Your task to perform on an android device: open app "Duolingo: language lessons" Image 0: 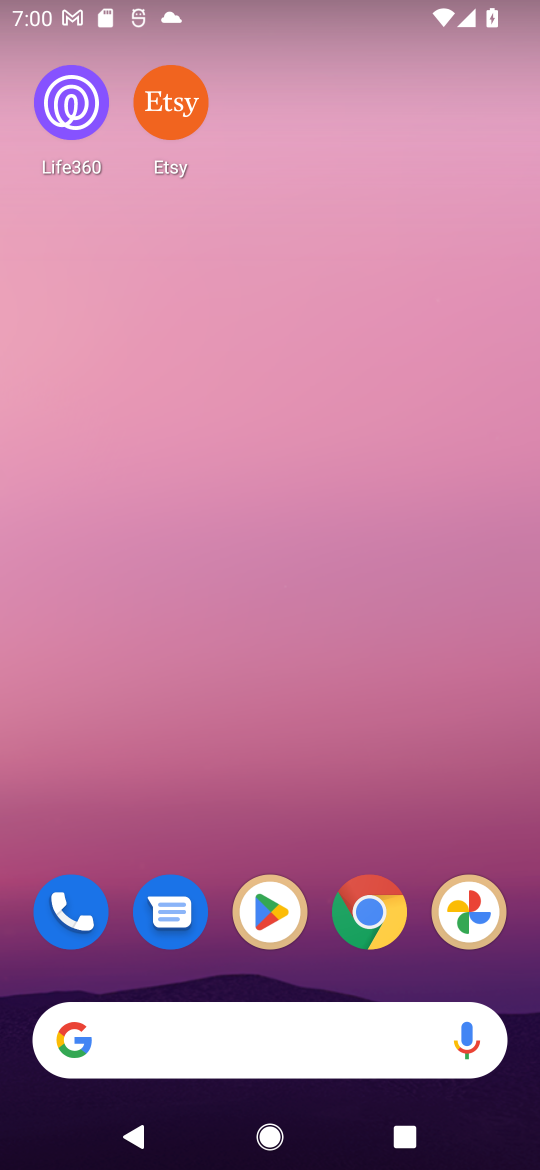
Step 0: drag from (490, 826) to (222, 28)
Your task to perform on an android device: open app "Duolingo: language lessons" Image 1: 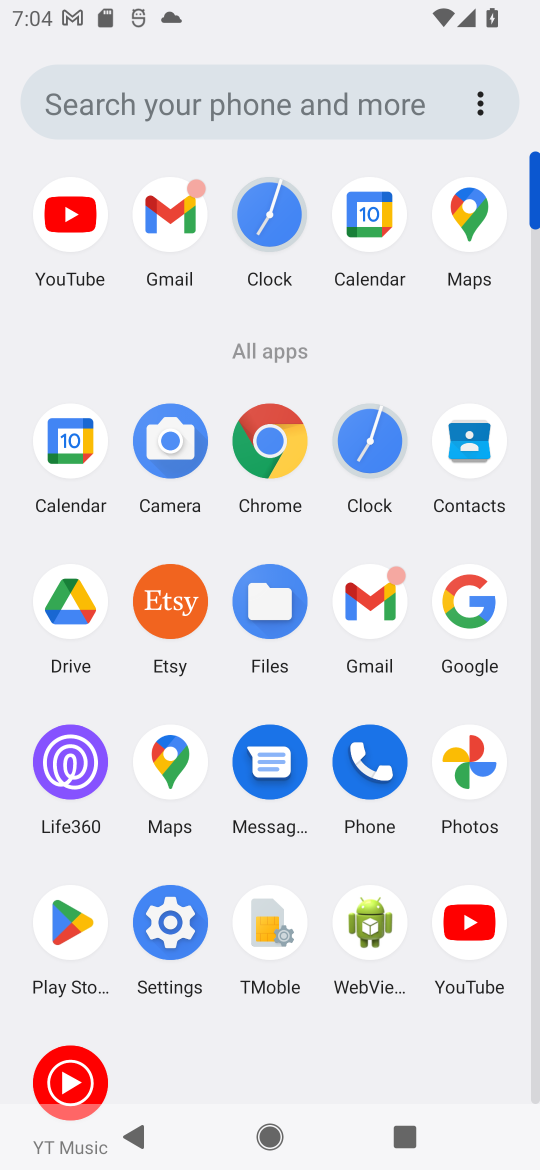
Step 1: click (60, 915)
Your task to perform on an android device: open app "Duolingo: language lessons" Image 2: 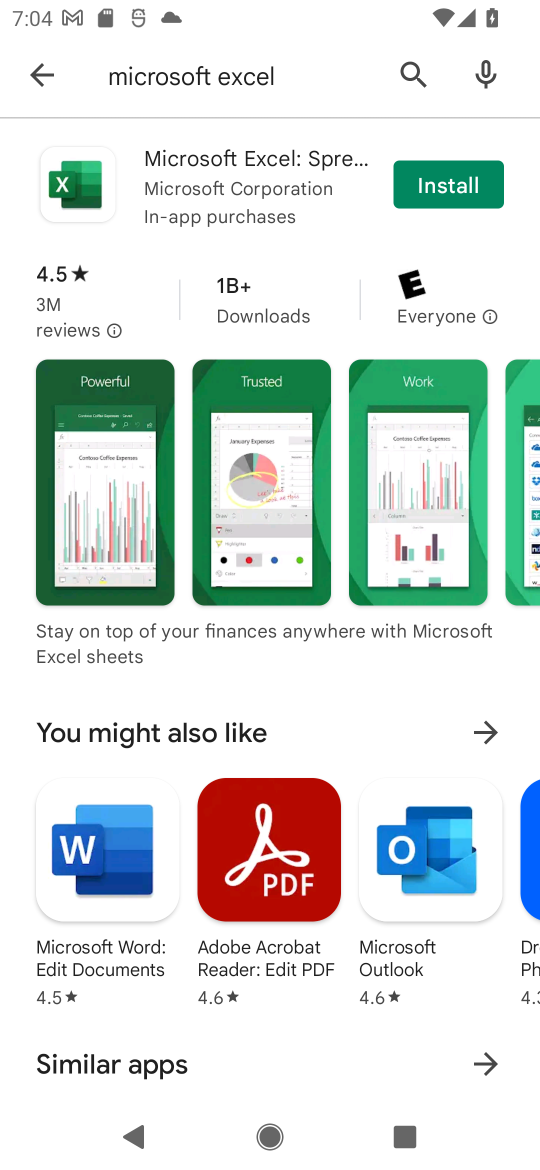
Step 2: press back button
Your task to perform on an android device: open app "Duolingo: language lessons" Image 3: 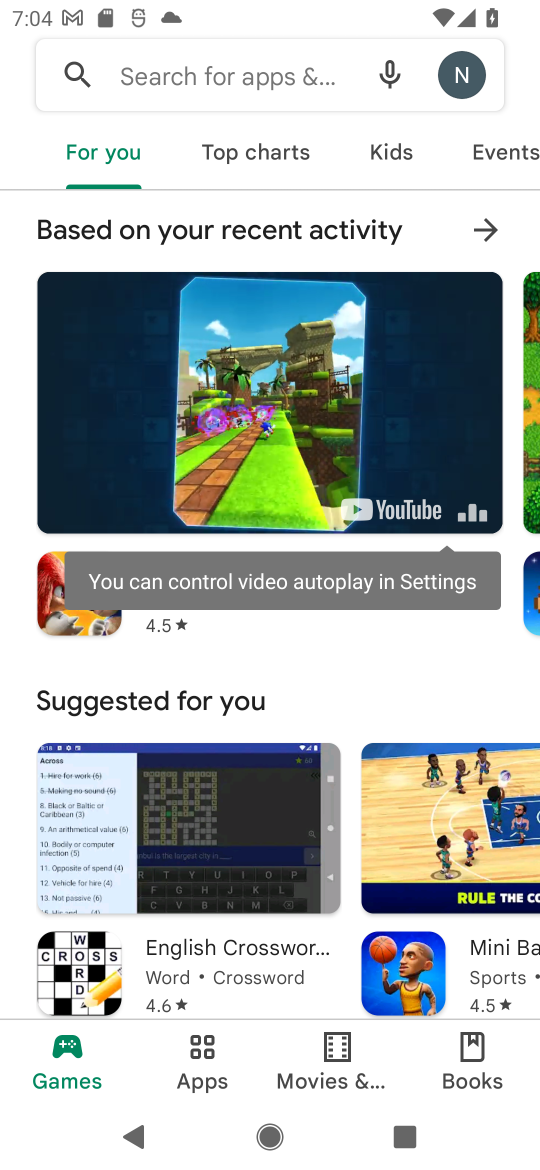
Step 3: click (186, 62)
Your task to perform on an android device: open app "Duolingo: language lessons" Image 4: 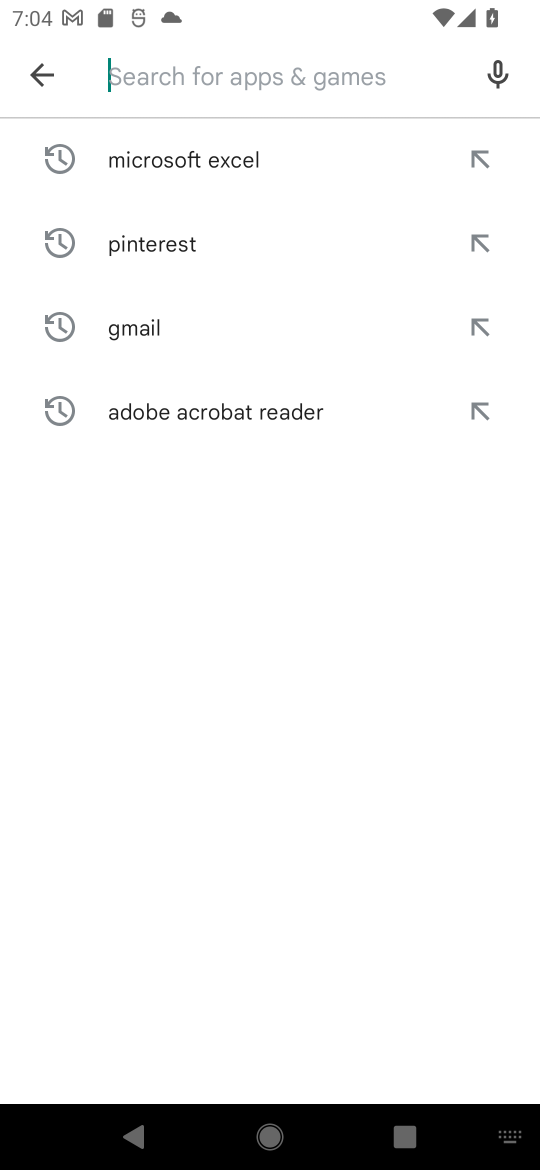
Step 4: type "Duolingo: language lessons"
Your task to perform on an android device: open app "Duolingo: language lessons" Image 5: 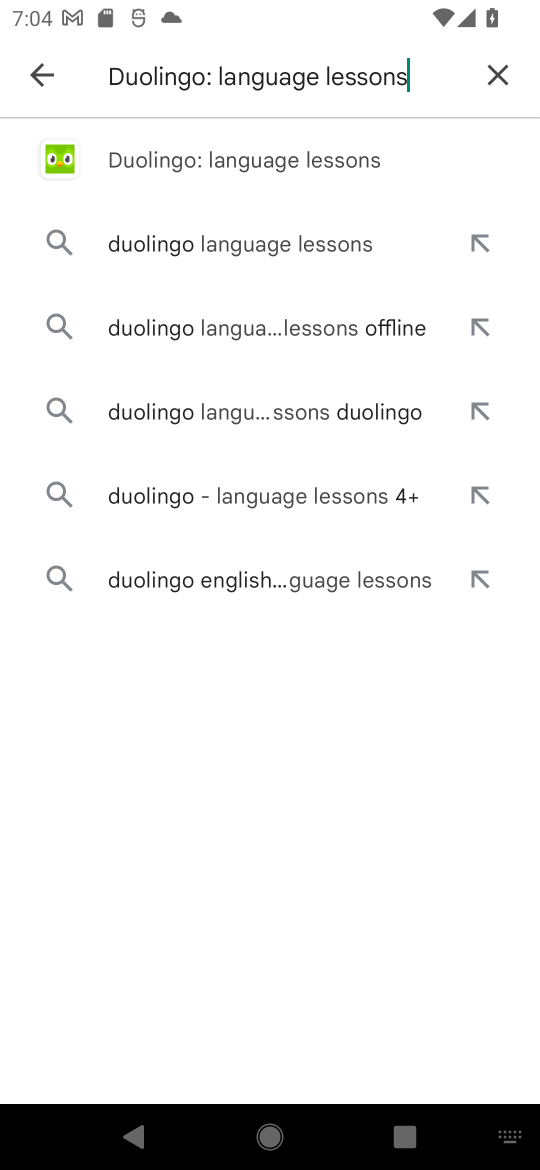
Step 5: click (185, 157)
Your task to perform on an android device: open app "Duolingo: language lessons" Image 6: 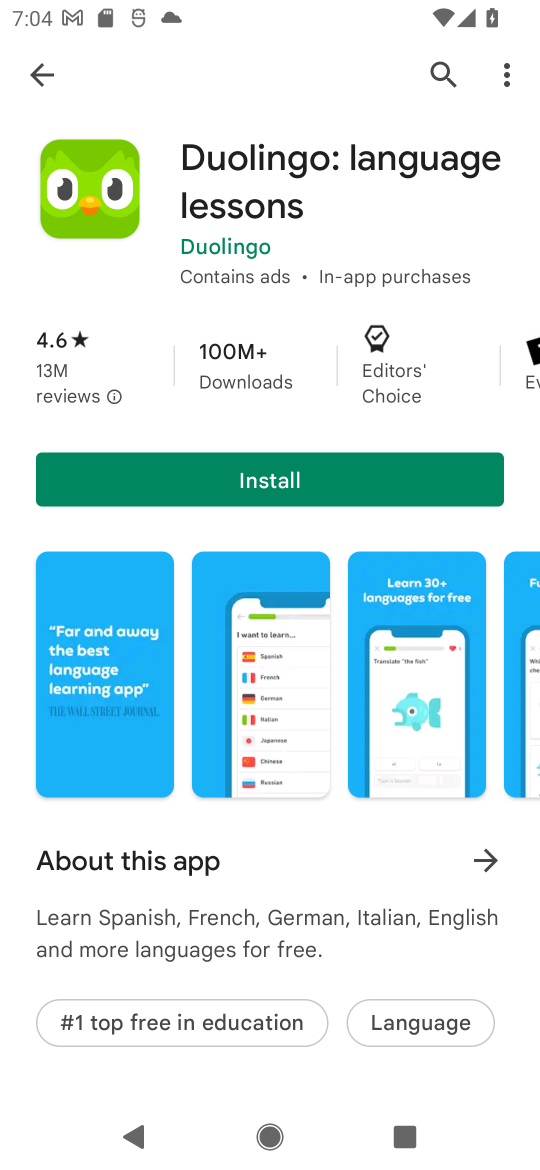
Step 6: task complete